Your task to perform on an android device: toggle notifications settings in the gmail app Image 0: 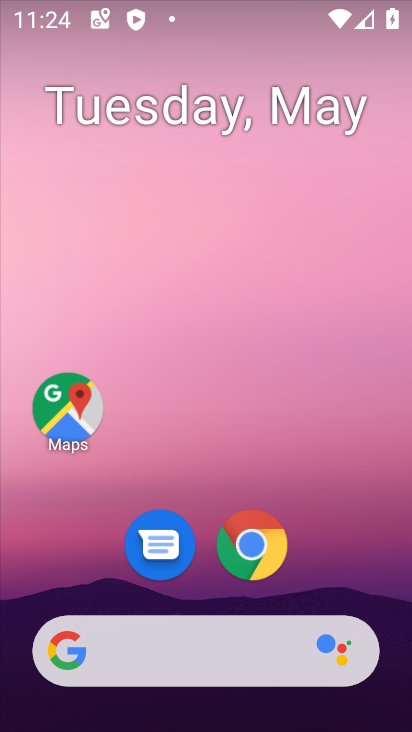
Step 0: drag from (236, 483) to (211, 14)
Your task to perform on an android device: toggle notifications settings in the gmail app Image 1: 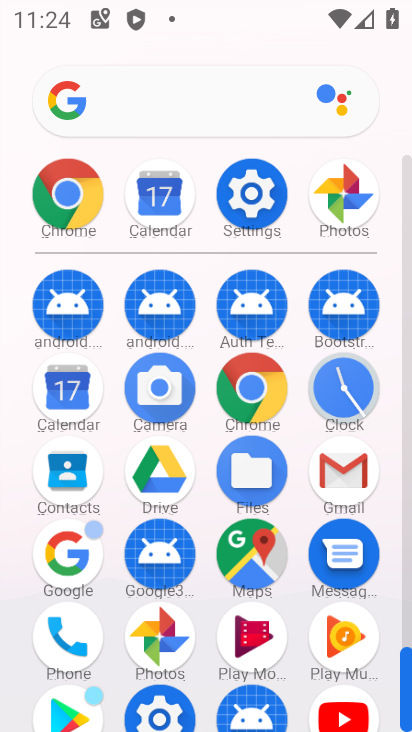
Step 1: click (370, 476)
Your task to perform on an android device: toggle notifications settings in the gmail app Image 2: 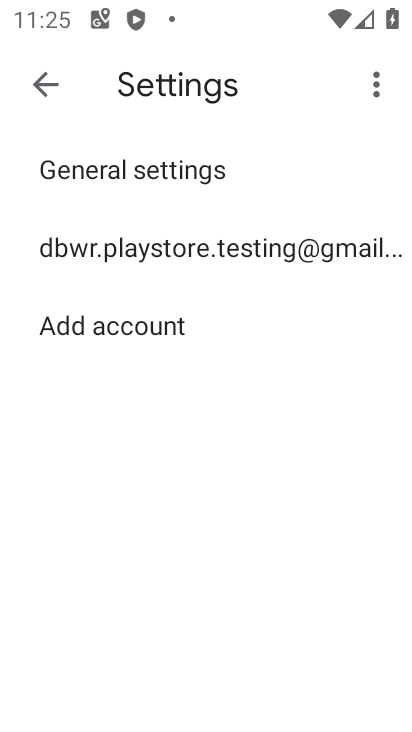
Step 2: click (170, 184)
Your task to perform on an android device: toggle notifications settings in the gmail app Image 3: 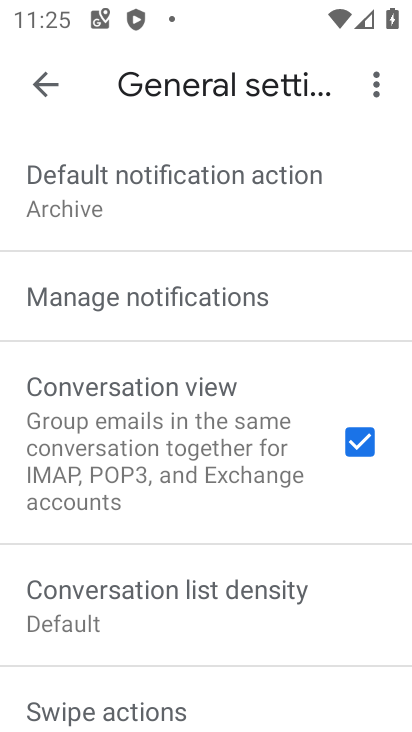
Step 3: click (252, 294)
Your task to perform on an android device: toggle notifications settings in the gmail app Image 4: 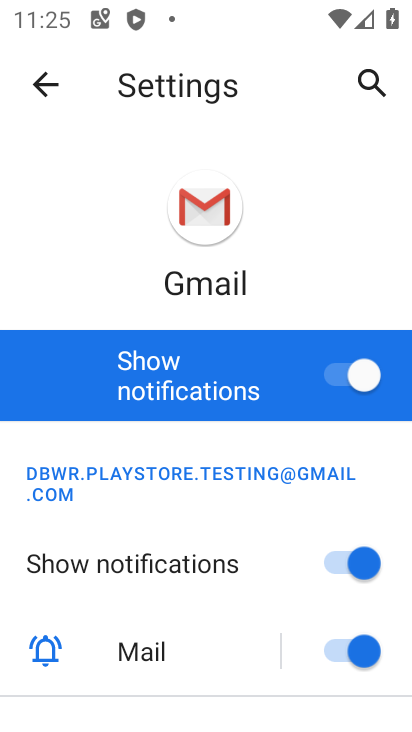
Step 4: click (330, 370)
Your task to perform on an android device: toggle notifications settings in the gmail app Image 5: 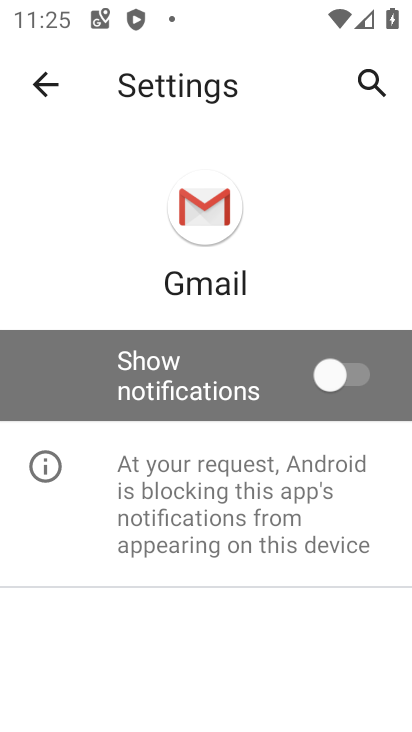
Step 5: task complete